Your task to perform on an android device: Go to Amazon Image 0: 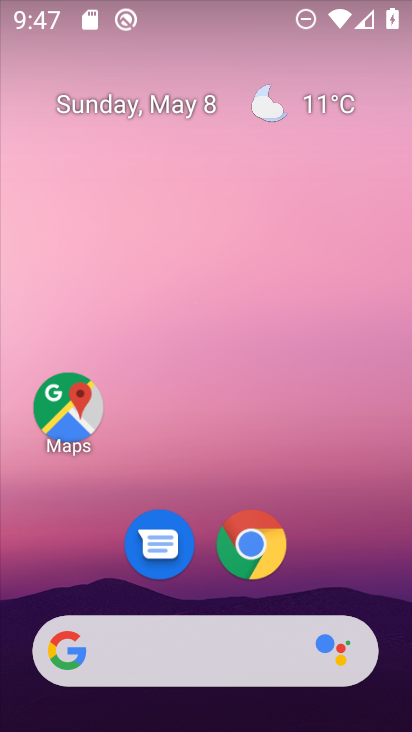
Step 0: click (258, 543)
Your task to perform on an android device: Go to Amazon Image 1: 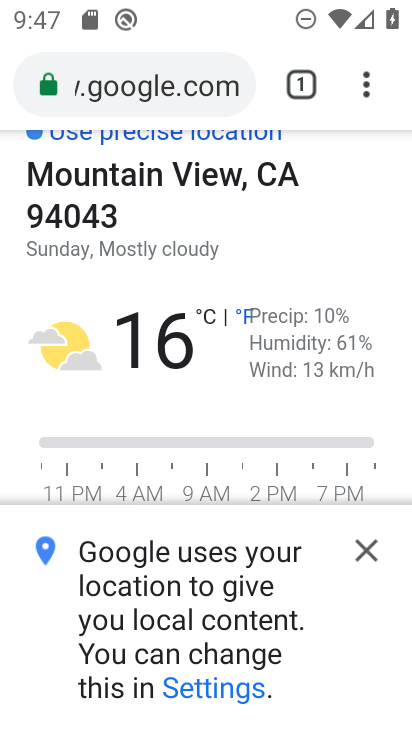
Step 1: drag from (367, 85) to (117, 175)
Your task to perform on an android device: Go to Amazon Image 2: 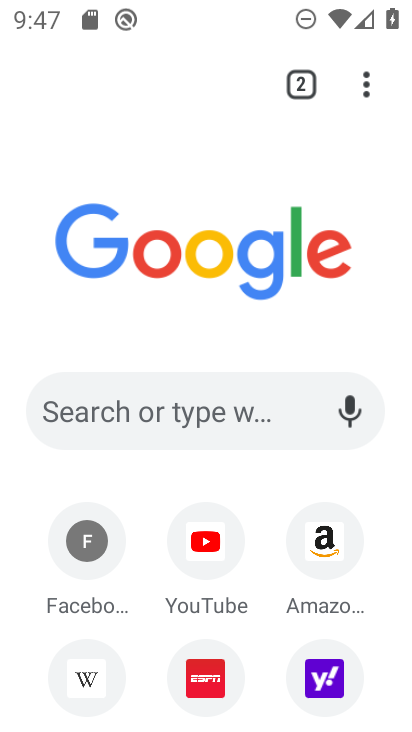
Step 2: click (310, 528)
Your task to perform on an android device: Go to Amazon Image 3: 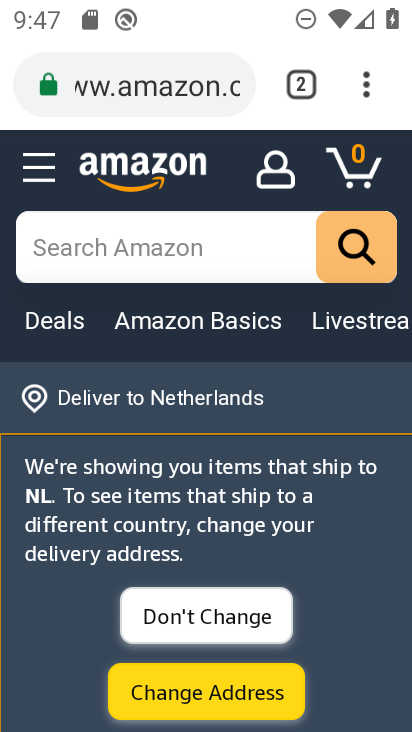
Step 3: task complete